Your task to perform on an android device: toggle airplane mode Image 0: 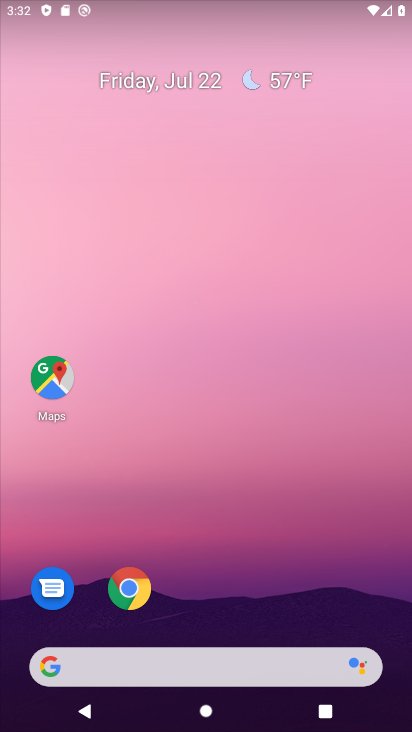
Step 0: drag from (204, 621) to (151, 16)
Your task to perform on an android device: toggle airplane mode Image 1: 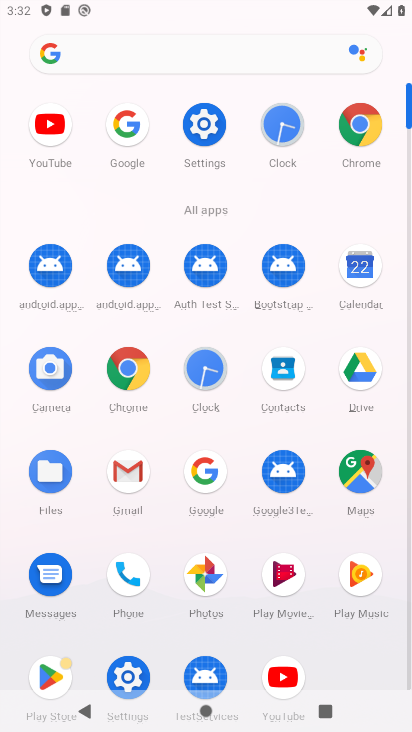
Step 1: click (199, 125)
Your task to perform on an android device: toggle airplane mode Image 2: 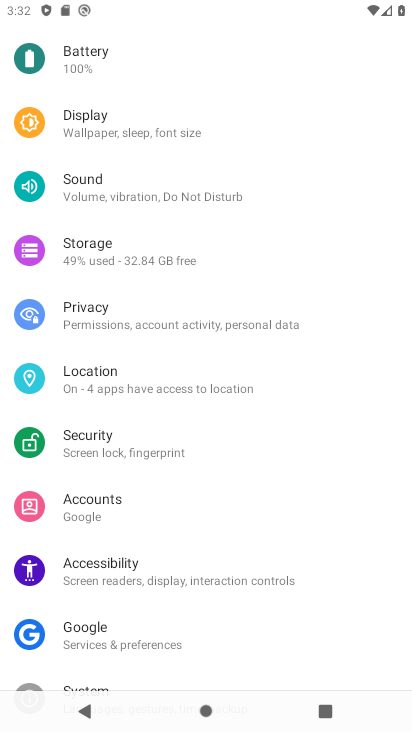
Step 2: drag from (139, 141) to (123, 597)
Your task to perform on an android device: toggle airplane mode Image 3: 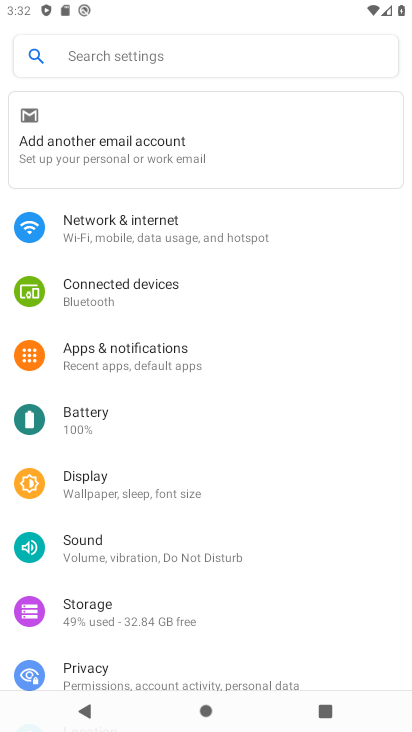
Step 3: click (136, 219)
Your task to perform on an android device: toggle airplane mode Image 4: 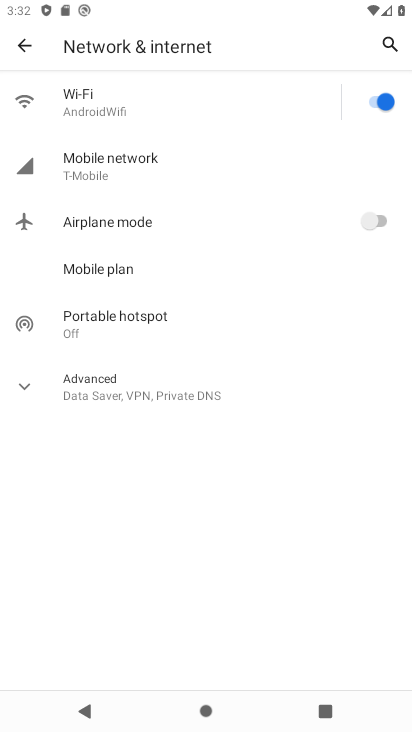
Step 4: click (121, 225)
Your task to perform on an android device: toggle airplane mode Image 5: 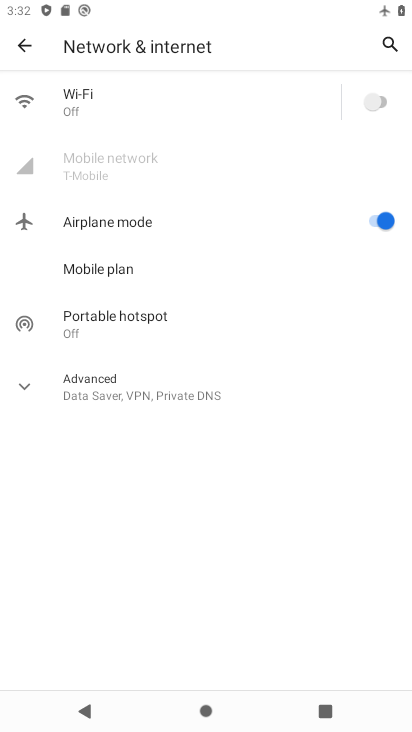
Step 5: task complete